Your task to perform on an android device: install app "WhatsApp Messenger" Image 0: 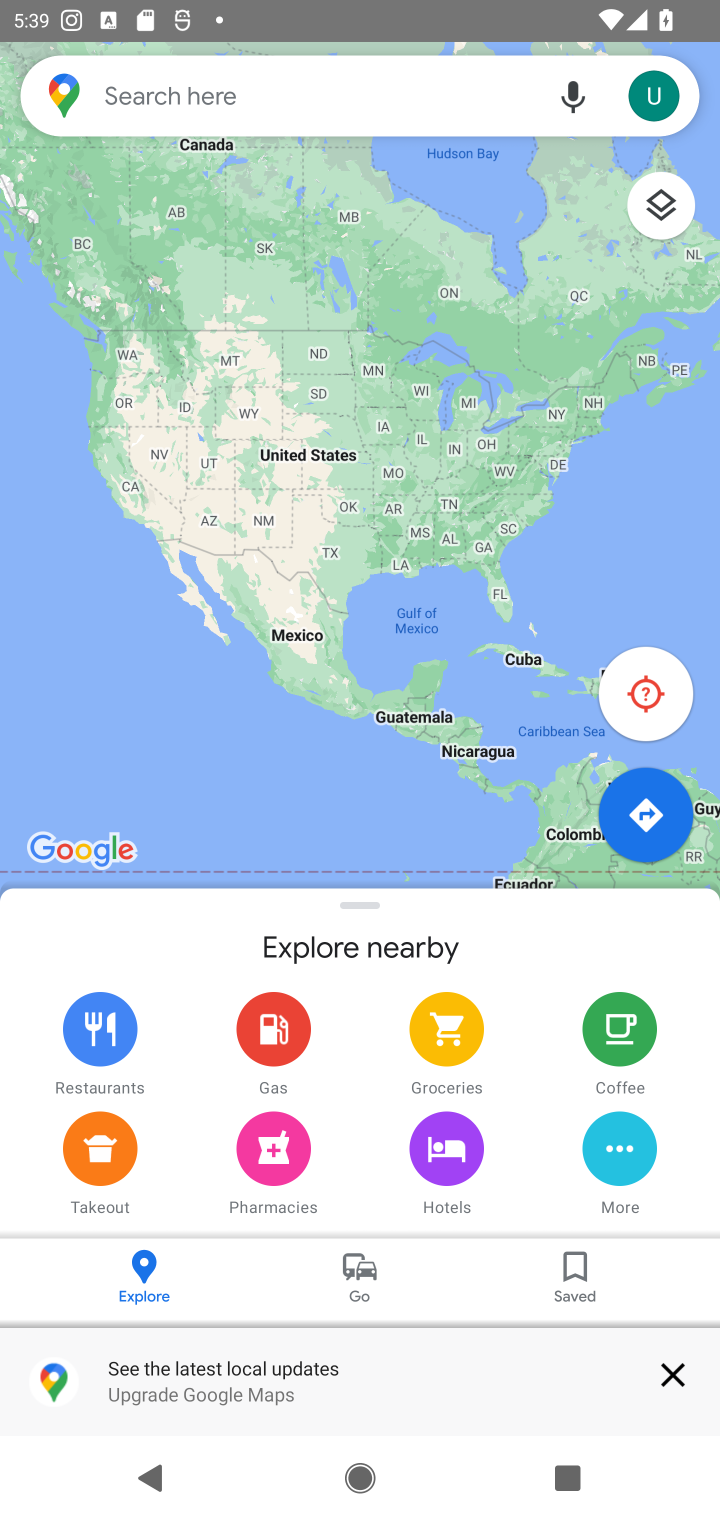
Step 0: press home button
Your task to perform on an android device: install app "WhatsApp Messenger" Image 1: 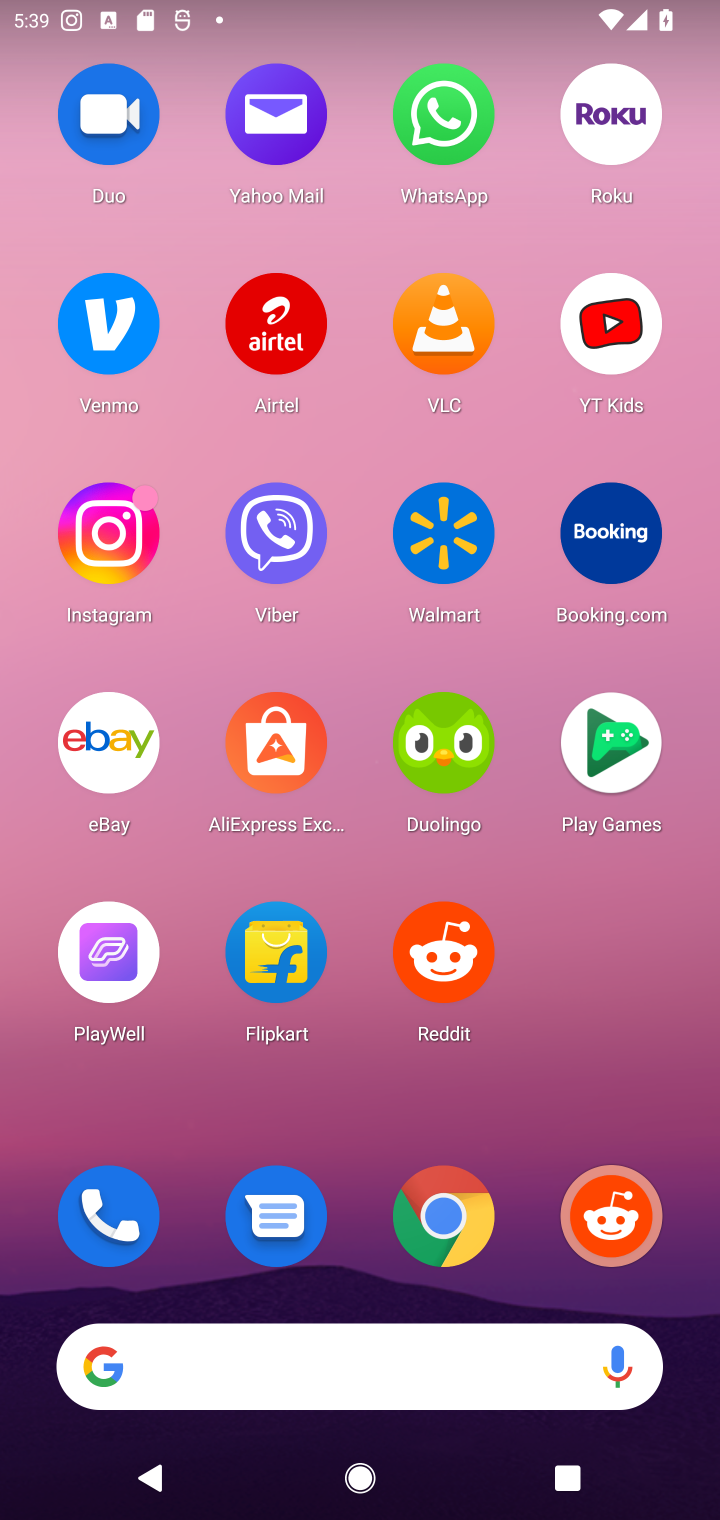
Step 1: drag from (358, 929) to (358, 101)
Your task to perform on an android device: install app "WhatsApp Messenger" Image 2: 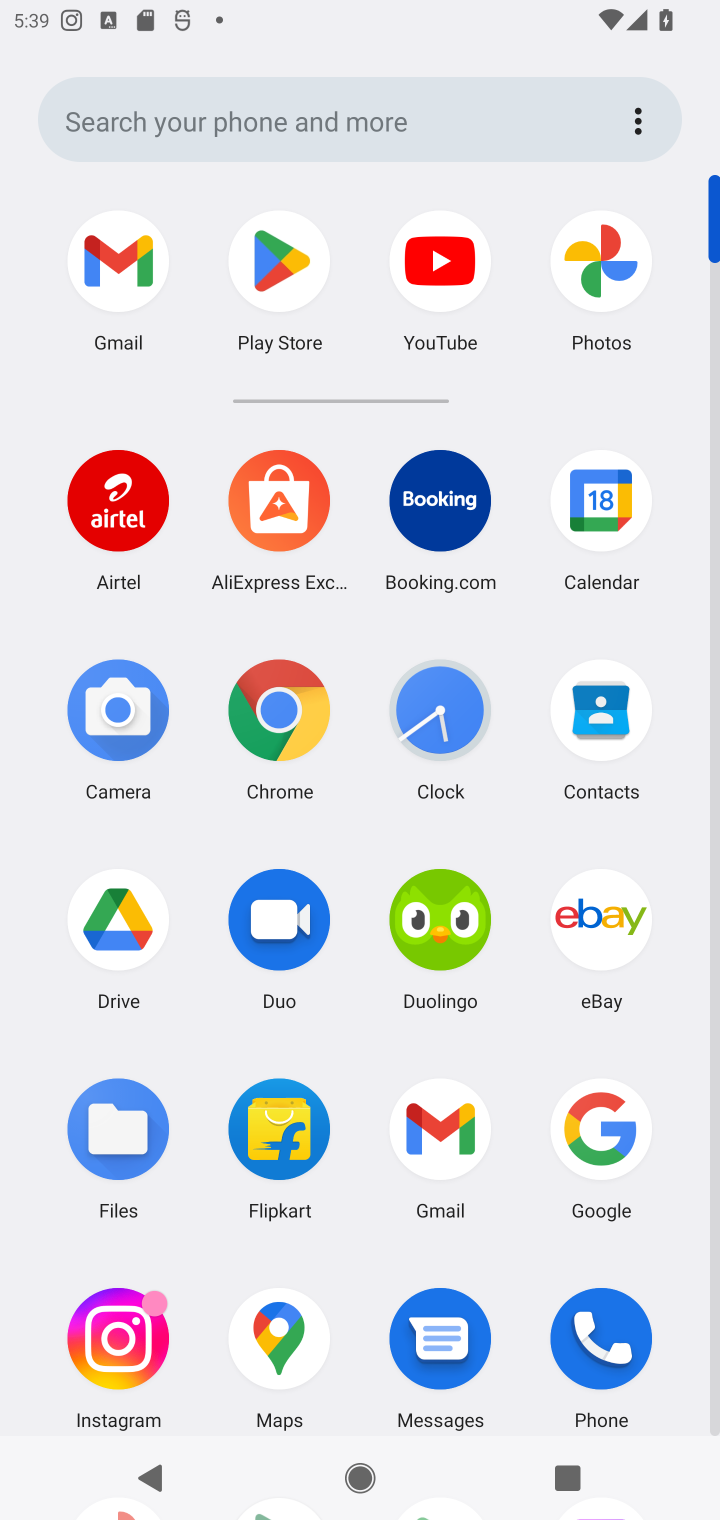
Step 2: click (261, 281)
Your task to perform on an android device: install app "WhatsApp Messenger" Image 3: 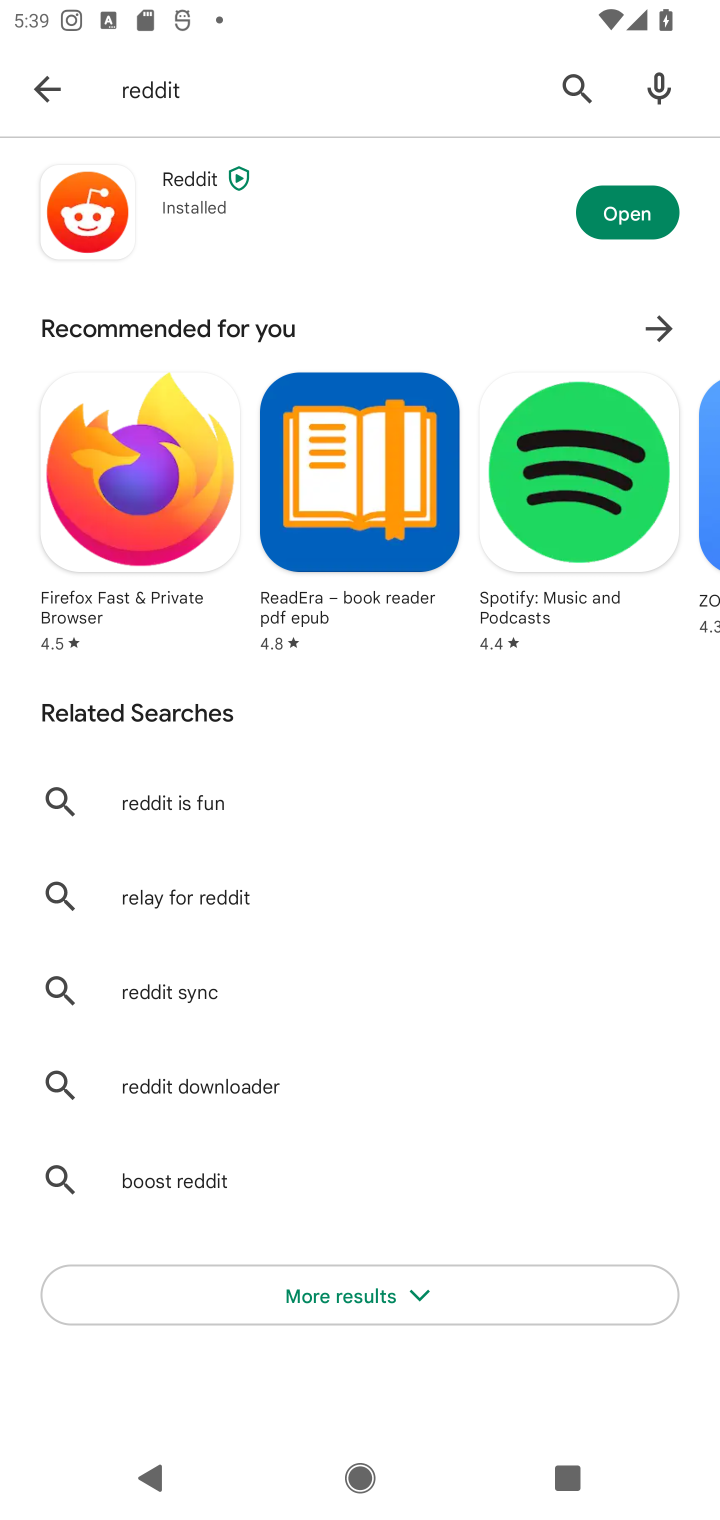
Step 3: click (572, 87)
Your task to perform on an android device: install app "WhatsApp Messenger" Image 4: 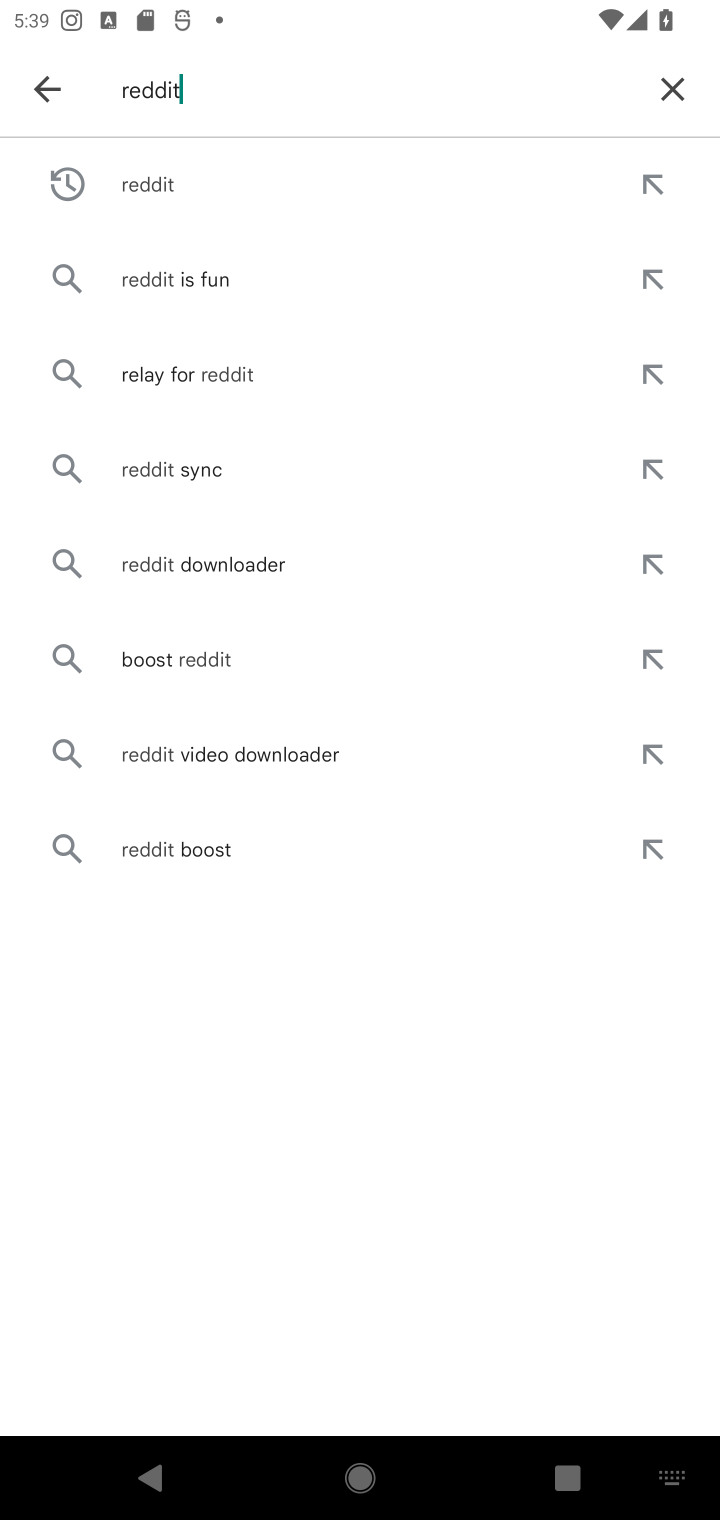
Step 4: click (681, 85)
Your task to perform on an android device: install app "WhatsApp Messenger" Image 5: 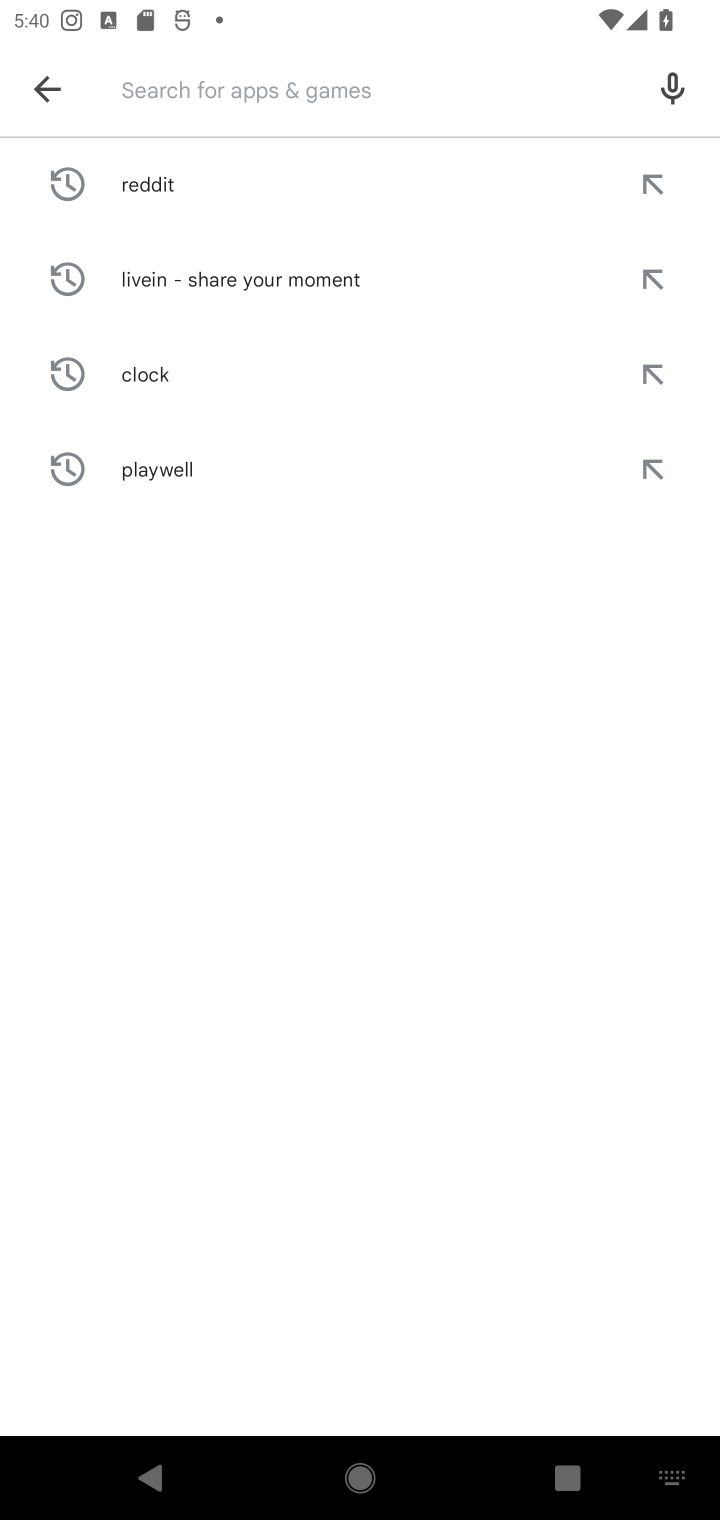
Step 5: type "WhatsApp Messenger"
Your task to perform on an android device: install app "WhatsApp Messenger" Image 6: 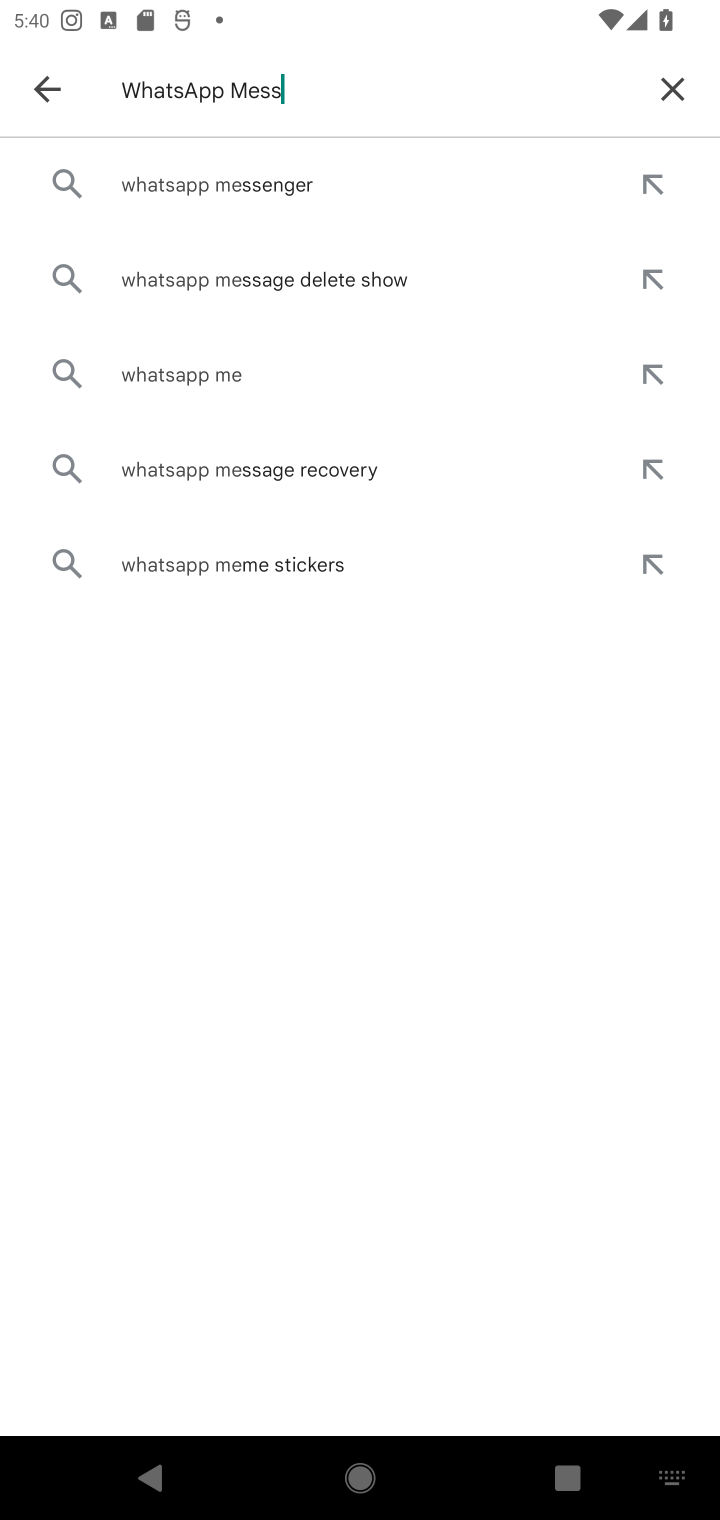
Step 6: type ""
Your task to perform on an android device: install app "WhatsApp Messenger" Image 7: 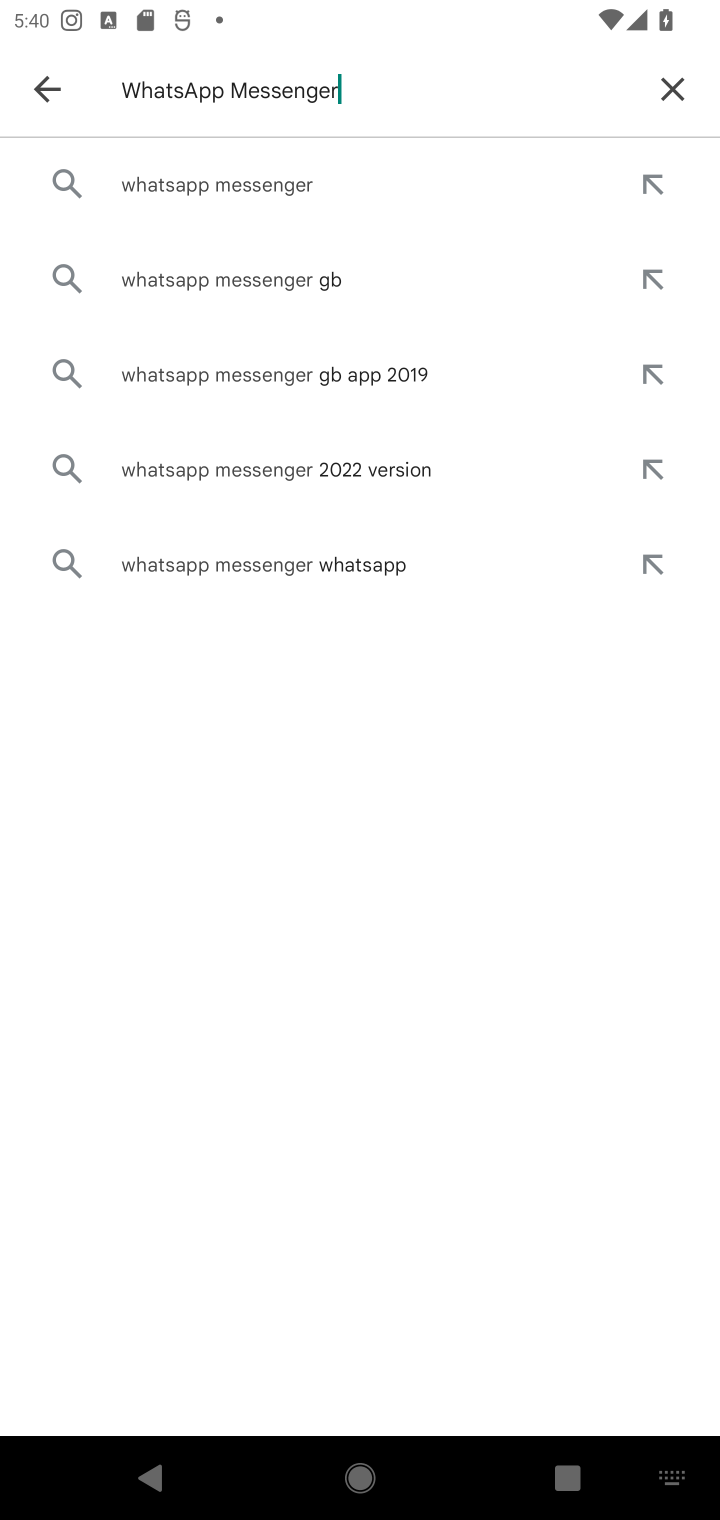
Step 7: click (361, 193)
Your task to perform on an android device: install app "WhatsApp Messenger" Image 8: 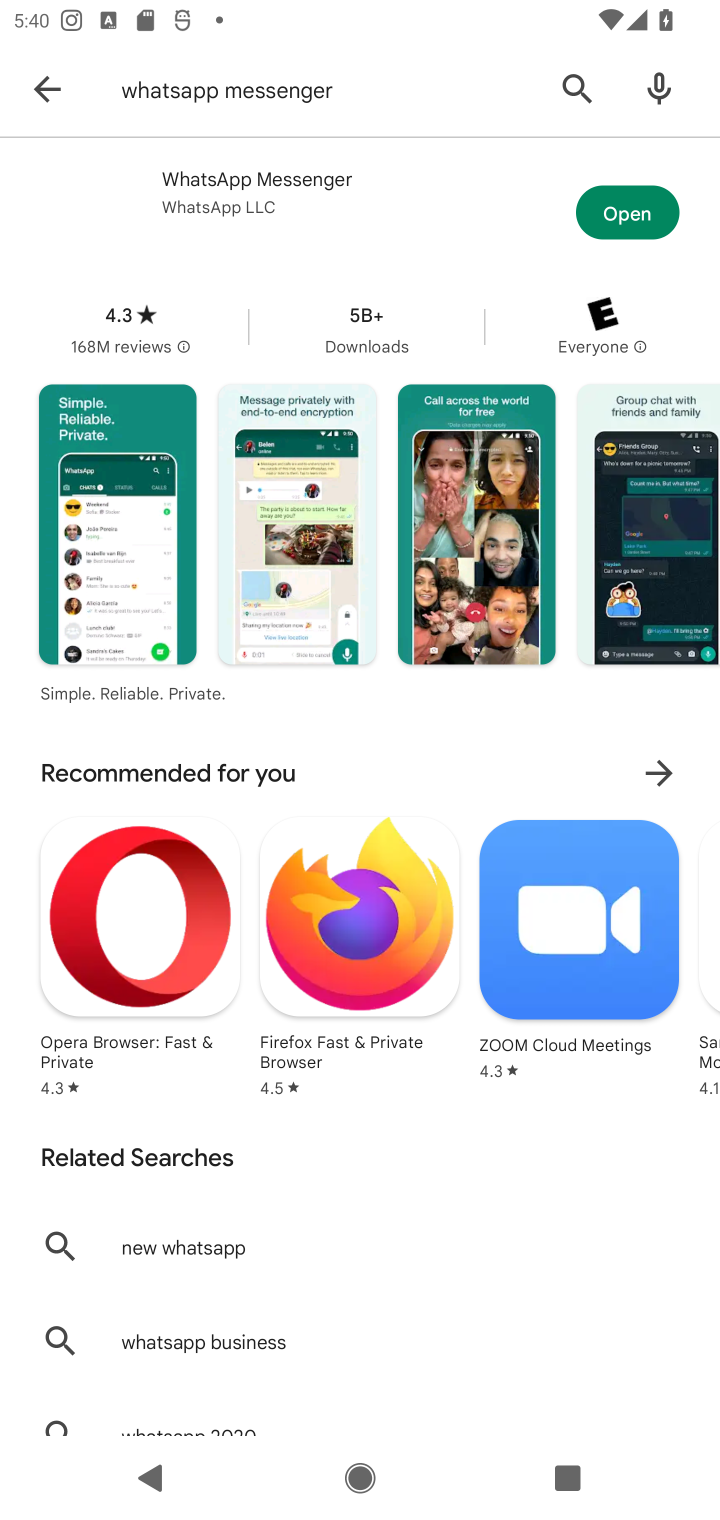
Step 8: click (368, 195)
Your task to perform on an android device: install app "WhatsApp Messenger" Image 9: 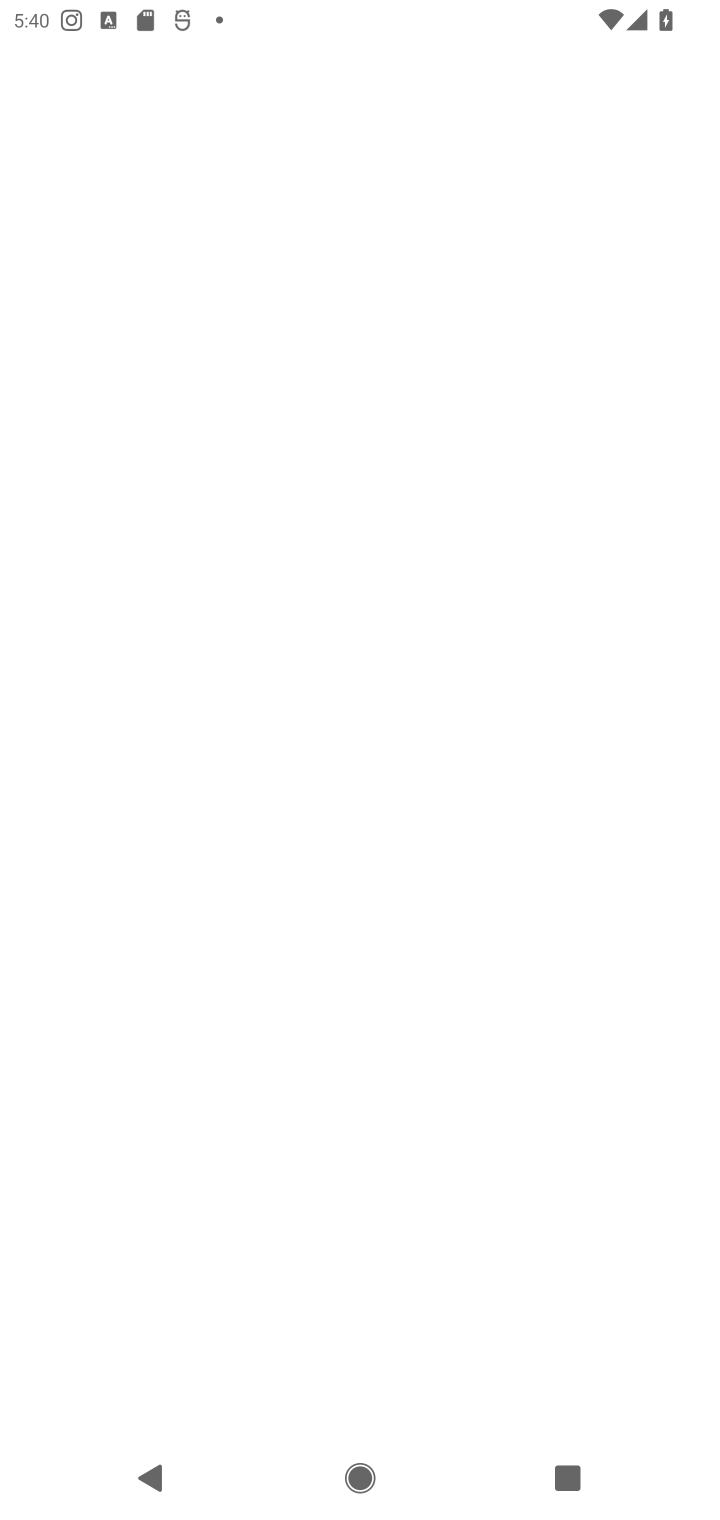
Step 9: task complete